Your task to perform on an android device: open app "WhatsApp Messenger" (install if not already installed) and enter user name: "cartons@outlook.com" and password: "approximated" Image 0: 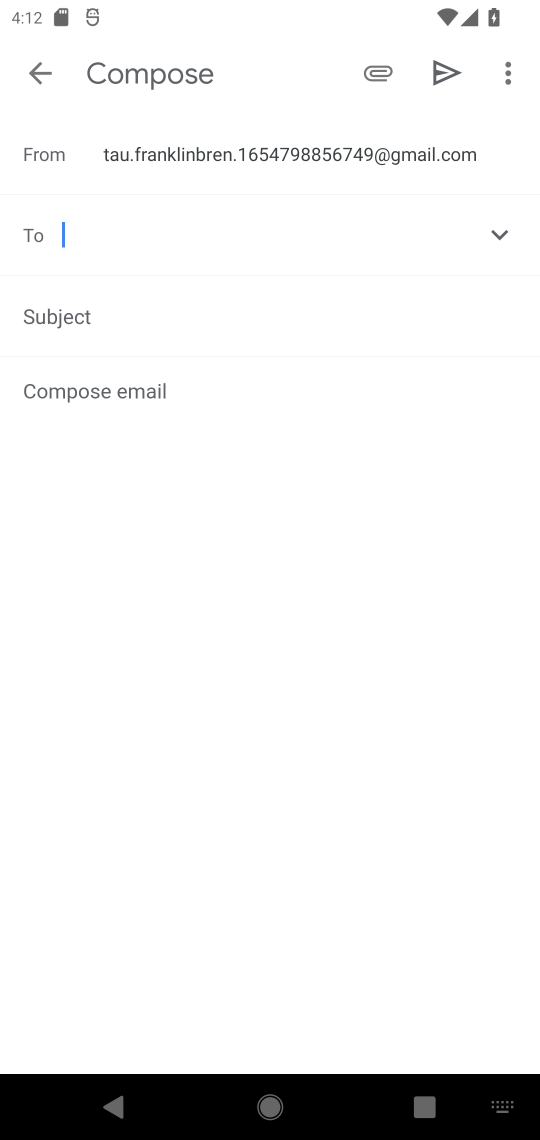
Step 0: press home button
Your task to perform on an android device: open app "WhatsApp Messenger" (install if not already installed) and enter user name: "cartons@outlook.com" and password: "approximated" Image 1: 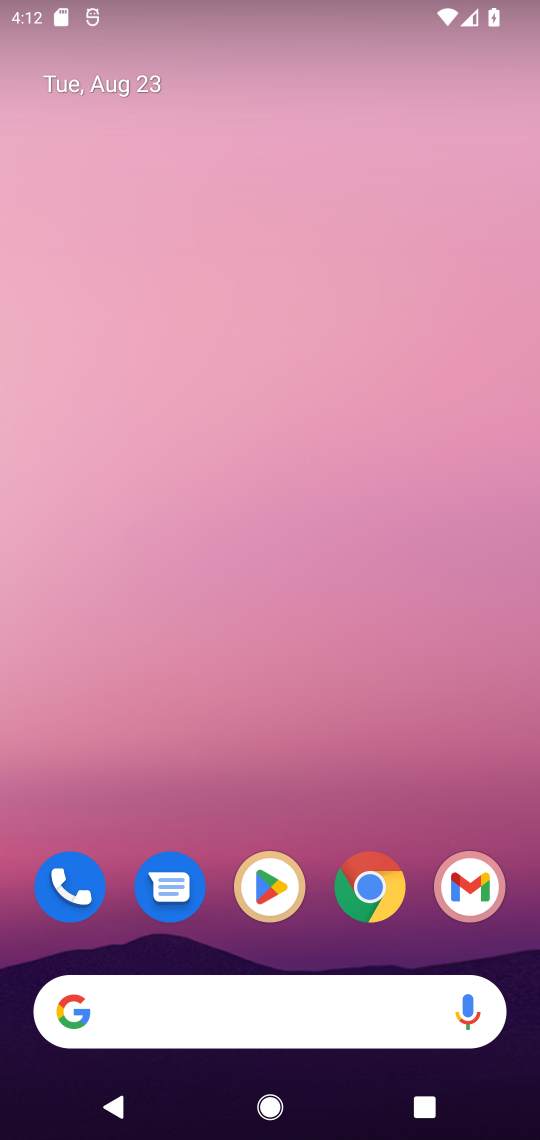
Step 1: click (274, 886)
Your task to perform on an android device: open app "WhatsApp Messenger" (install if not already installed) and enter user name: "cartons@outlook.com" and password: "approximated" Image 2: 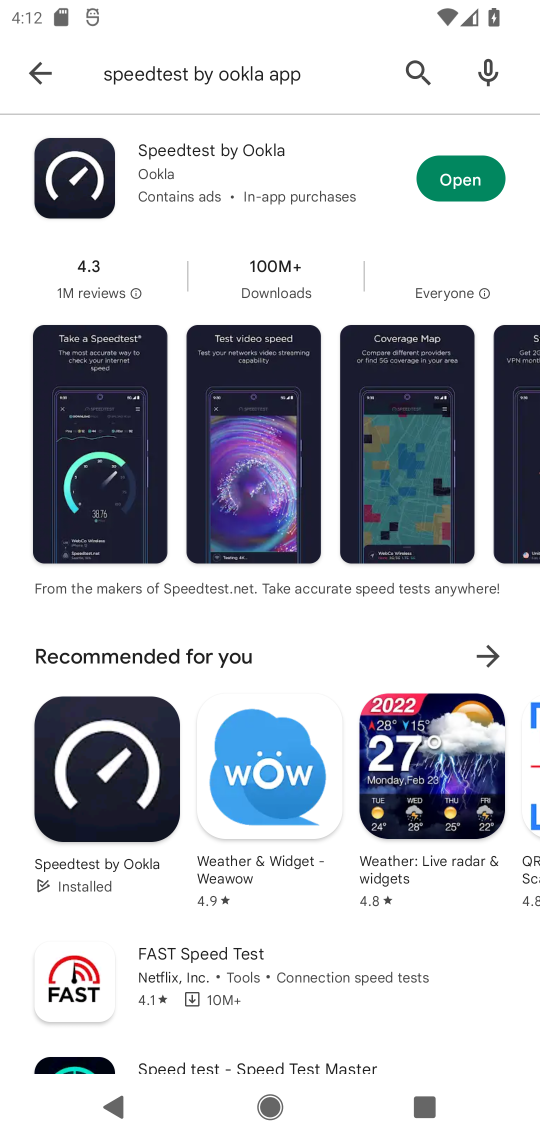
Step 2: click (28, 75)
Your task to perform on an android device: open app "WhatsApp Messenger" (install if not already installed) and enter user name: "cartons@outlook.com" and password: "approximated" Image 3: 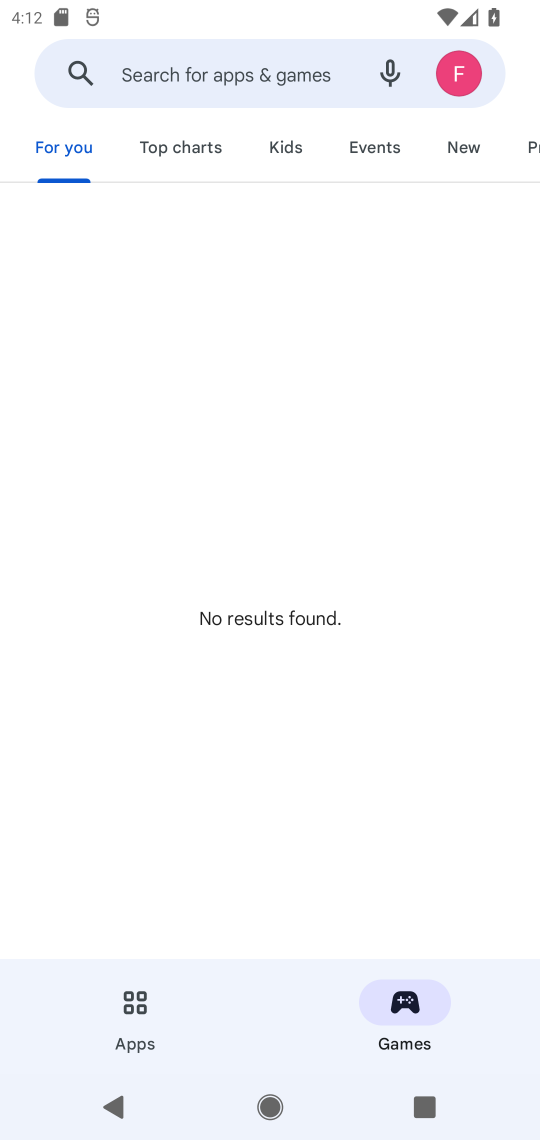
Step 3: click (218, 56)
Your task to perform on an android device: open app "WhatsApp Messenger" (install if not already installed) and enter user name: "cartons@outlook.com" and password: "approximated" Image 4: 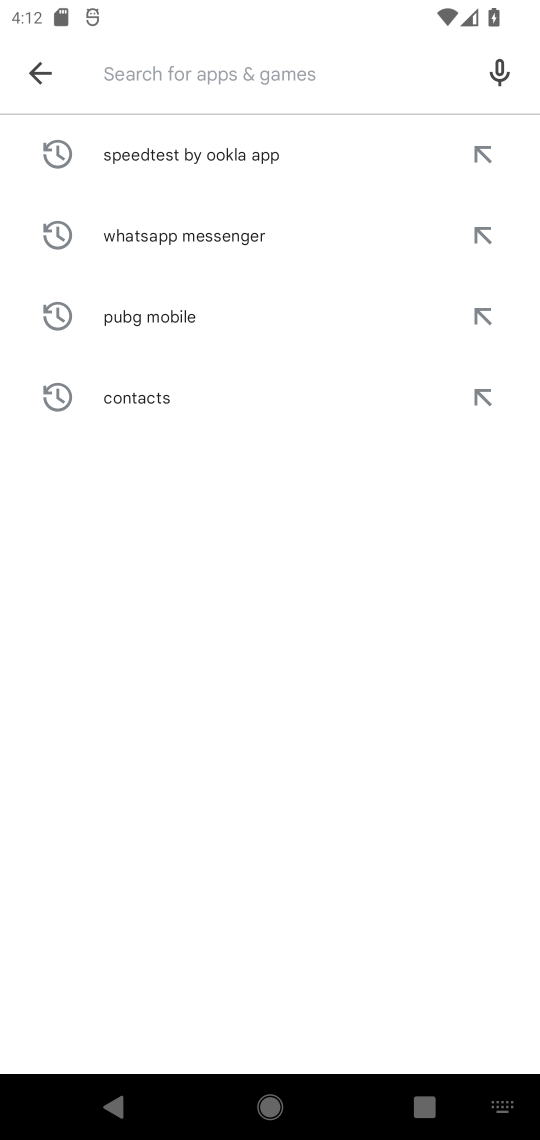
Step 4: type "WhatsApp Messenger"
Your task to perform on an android device: open app "WhatsApp Messenger" (install if not already installed) and enter user name: "cartons@outlook.com" and password: "approximated" Image 5: 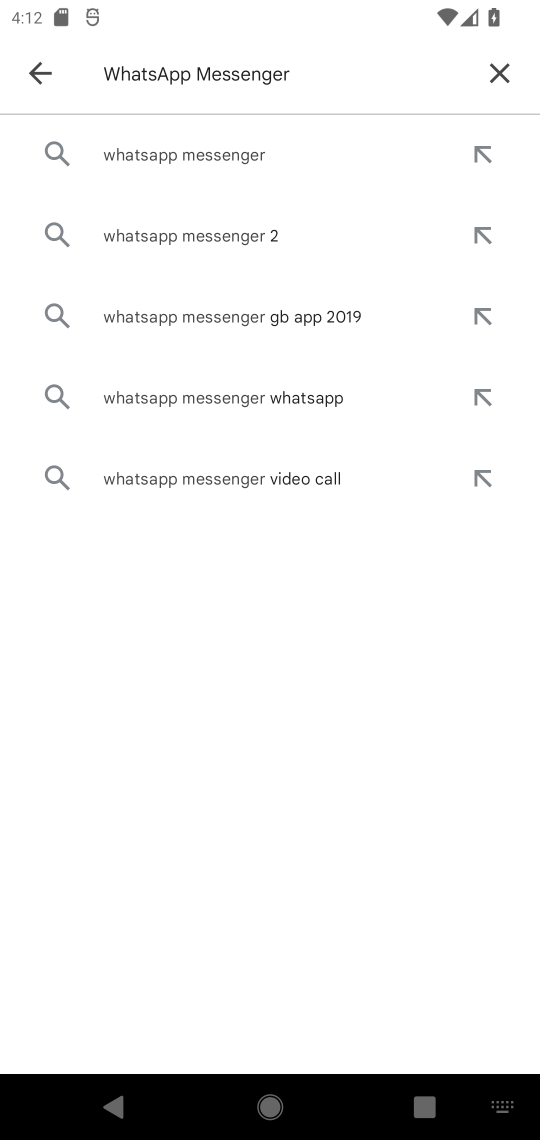
Step 5: click (162, 166)
Your task to perform on an android device: open app "WhatsApp Messenger" (install if not already installed) and enter user name: "cartons@outlook.com" and password: "approximated" Image 6: 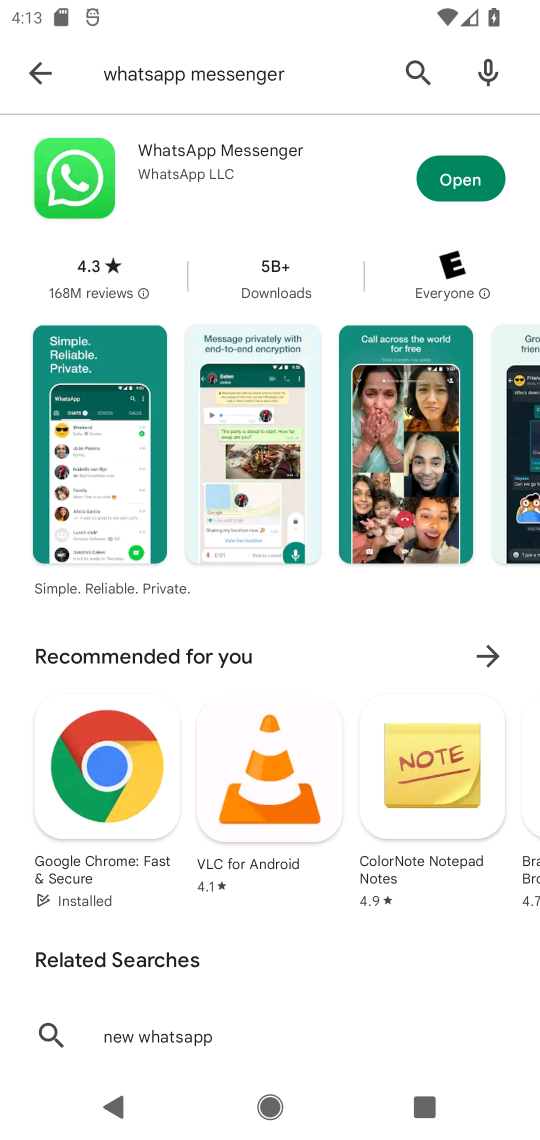
Step 6: click (434, 173)
Your task to perform on an android device: open app "WhatsApp Messenger" (install if not already installed) and enter user name: "cartons@outlook.com" and password: "approximated" Image 7: 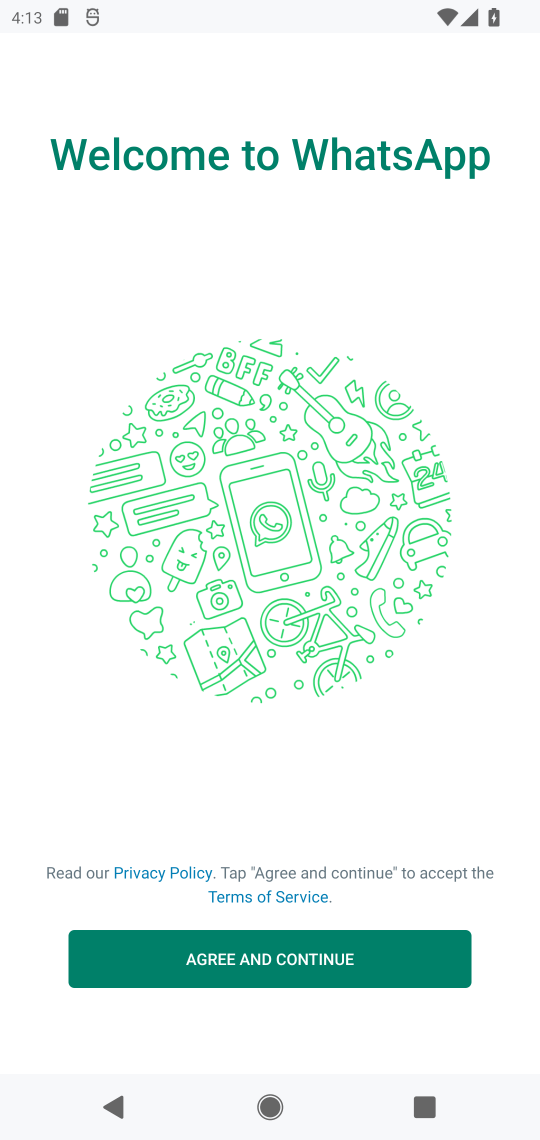
Step 7: click (299, 962)
Your task to perform on an android device: open app "WhatsApp Messenger" (install if not already installed) and enter user name: "cartons@outlook.com" and password: "approximated" Image 8: 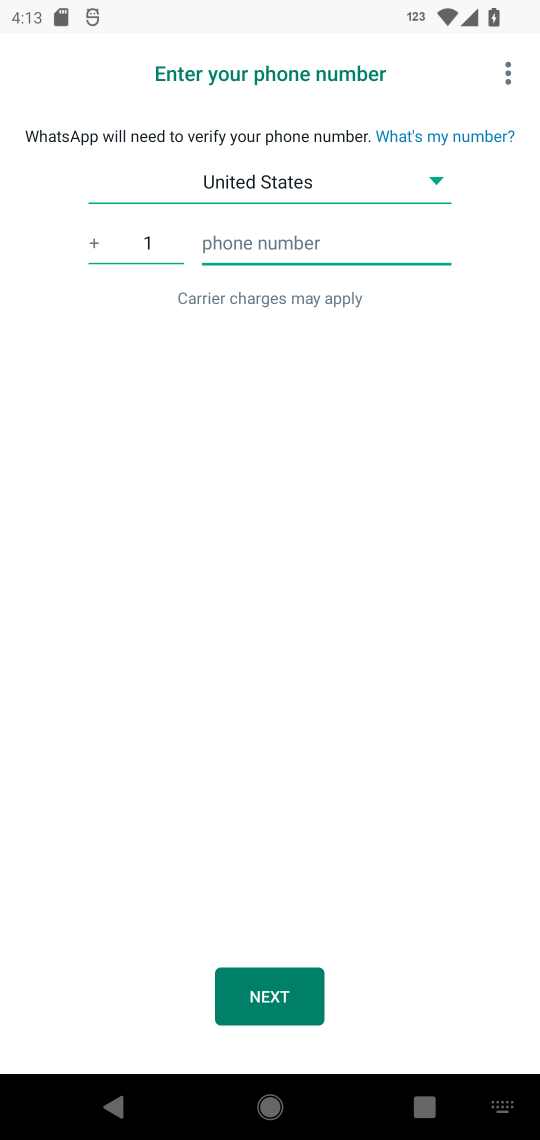
Step 8: task complete